Your task to perform on an android device: Open Android settings Image 0: 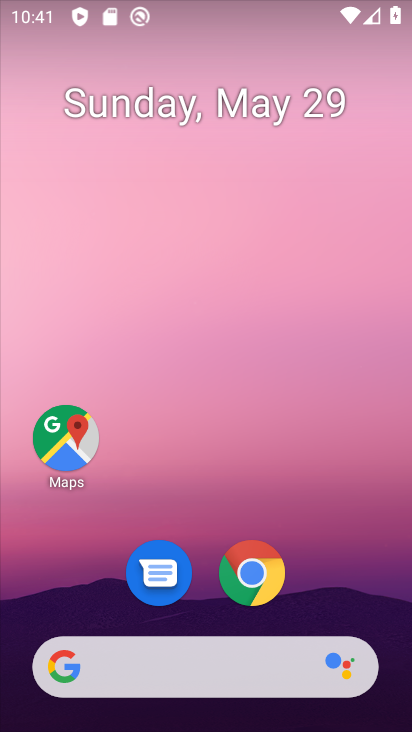
Step 0: drag from (352, 428) to (231, 73)
Your task to perform on an android device: Open Android settings Image 1: 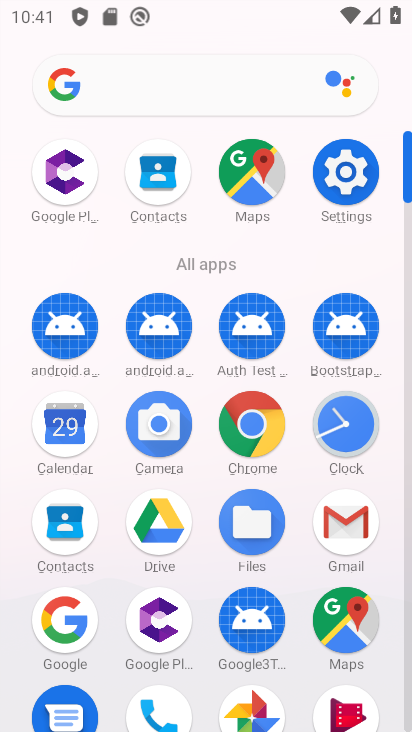
Step 1: click (345, 184)
Your task to perform on an android device: Open Android settings Image 2: 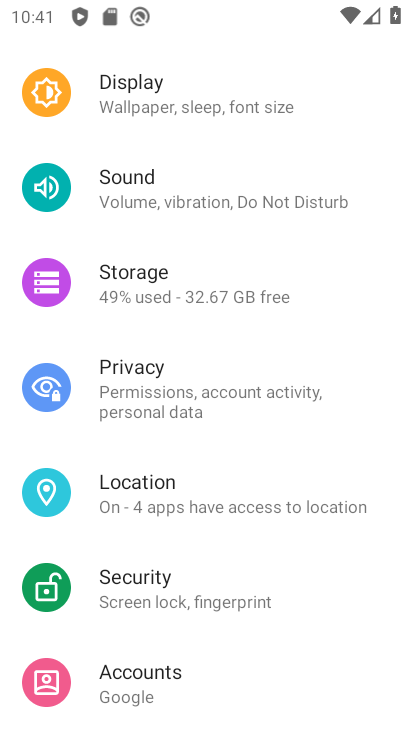
Step 2: drag from (255, 581) to (209, 14)
Your task to perform on an android device: Open Android settings Image 3: 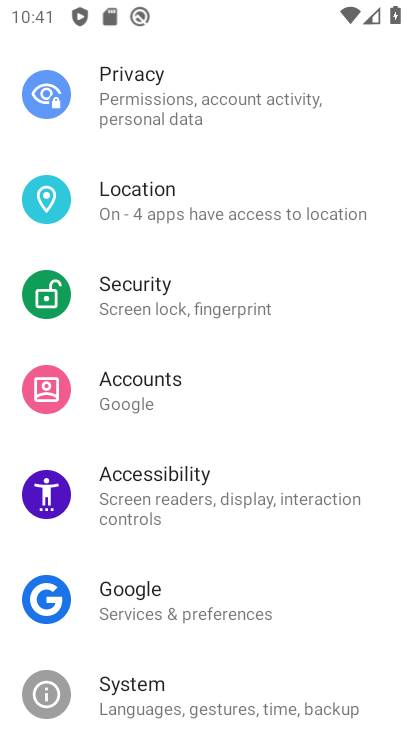
Step 3: drag from (252, 646) to (233, 37)
Your task to perform on an android device: Open Android settings Image 4: 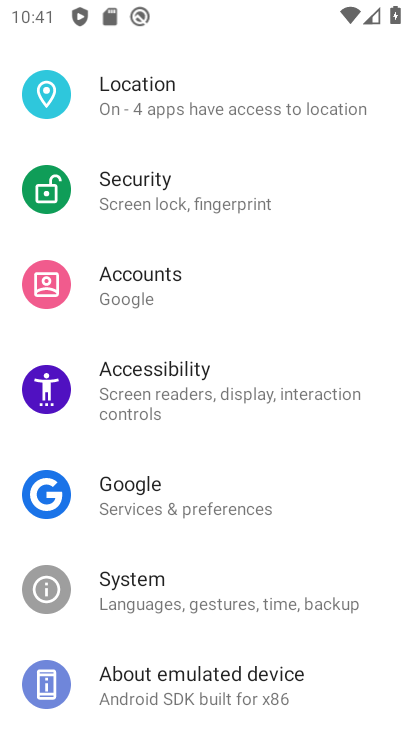
Step 4: click (204, 699)
Your task to perform on an android device: Open Android settings Image 5: 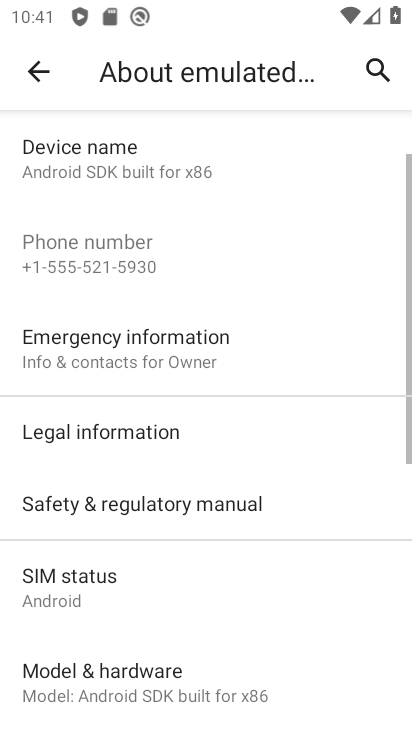
Step 5: drag from (198, 584) to (199, 93)
Your task to perform on an android device: Open Android settings Image 6: 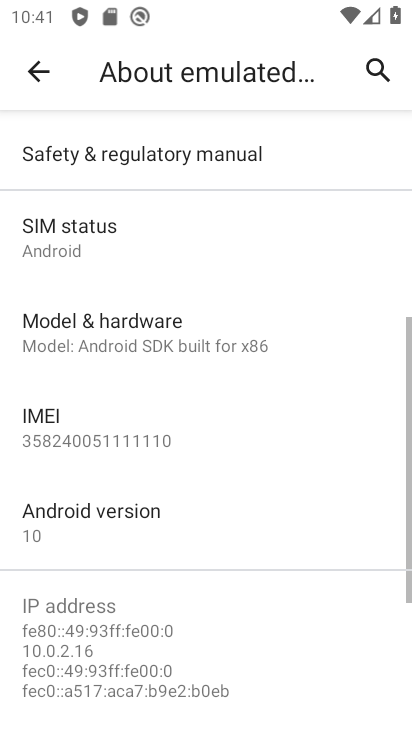
Step 6: click (146, 534)
Your task to perform on an android device: Open Android settings Image 7: 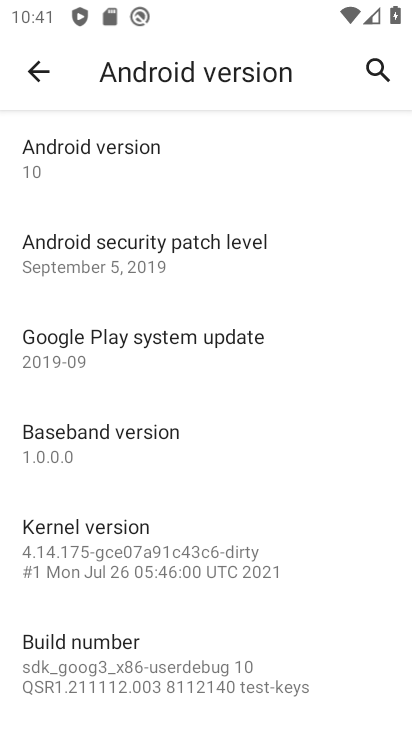
Step 7: task complete